Your task to perform on an android device: Open my contact list Image 0: 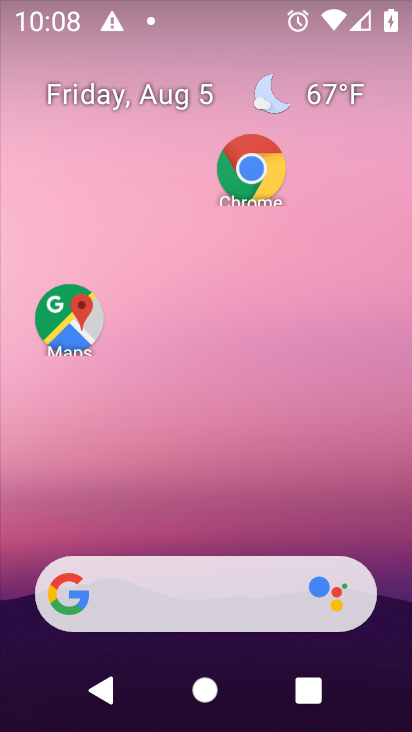
Step 0: drag from (186, 526) to (157, 160)
Your task to perform on an android device: Open my contact list Image 1: 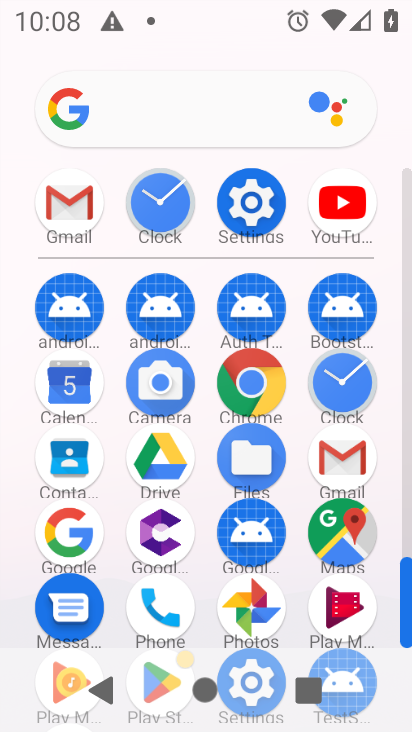
Step 1: click (71, 471)
Your task to perform on an android device: Open my contact list Image 2: 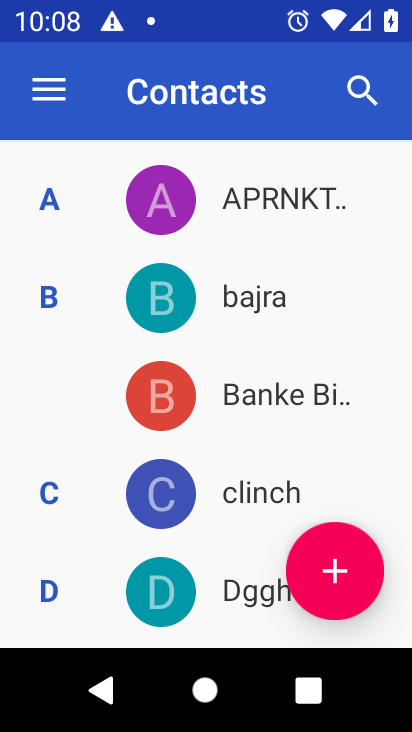
Step 2: task complete